Your task to perform on an android device: Clear all items from cart on newegg.com. Add "razer thresher" to the cart on newegg.com Image 0: 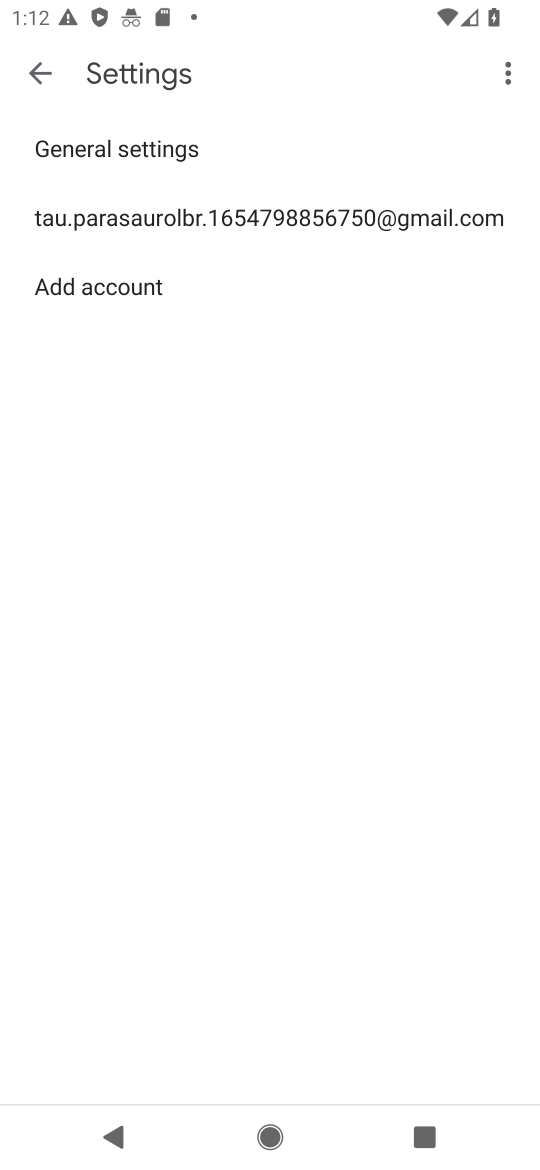
Step 0: press home button
Your task to perform on an android device: Clear all items from cart on newegg.com. Add "razer thresher" to the cart on newegg.com Image 1: 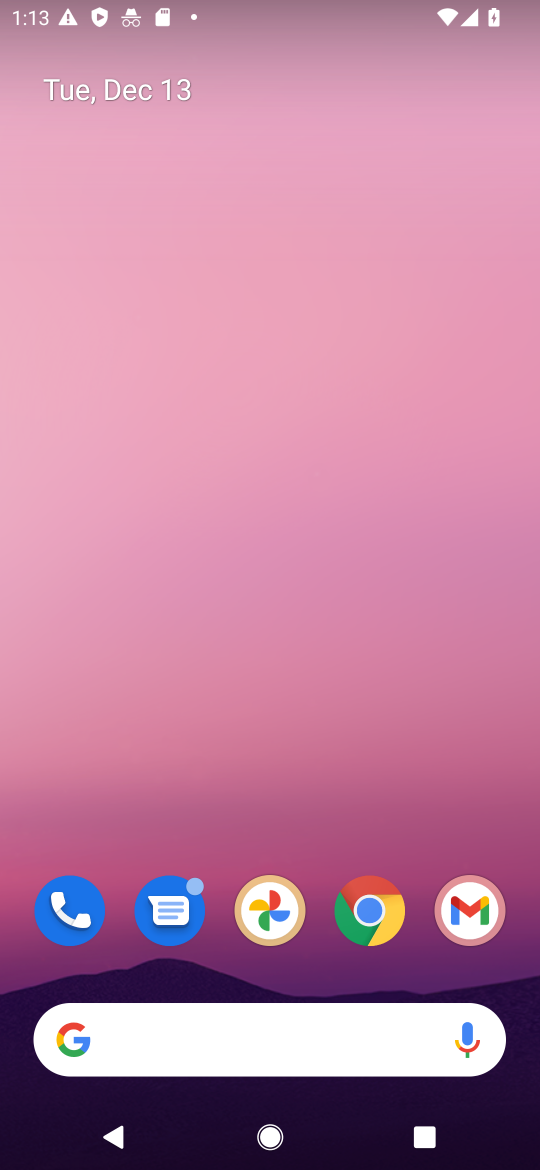
Step 1: click (366, 897)
Your task to perform on an android device: Clear all items from cart on newegg.com. Add "razer thresher" to the cart on newegg.com Image 2: 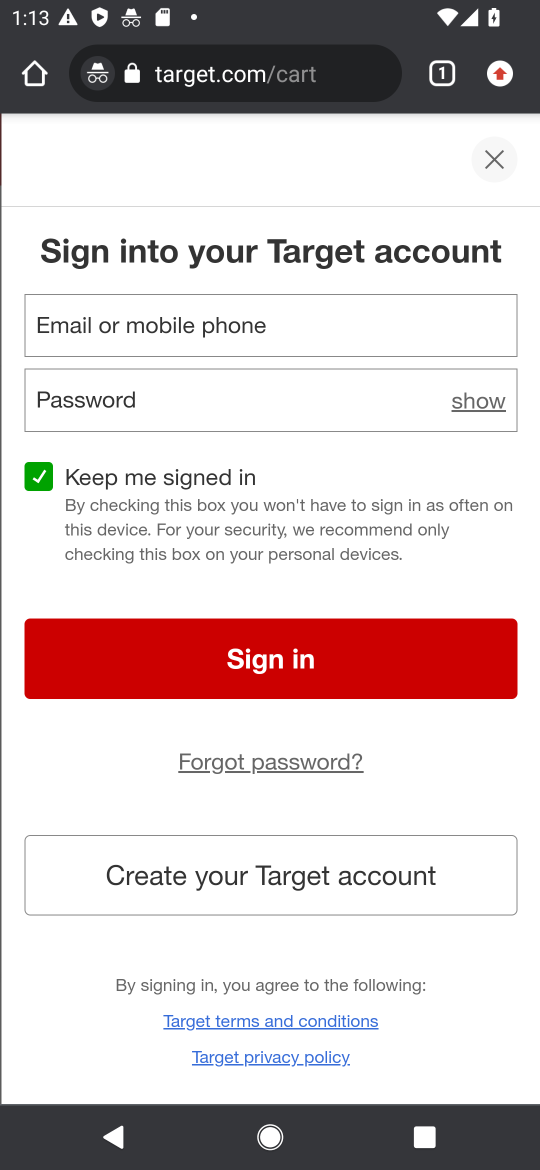
Step 2: click (225, 77)
Your task to perform on an android device: Clear all items from cart on newegg.com. Add "razer thresher" to the cart on newegg.com Image 3: 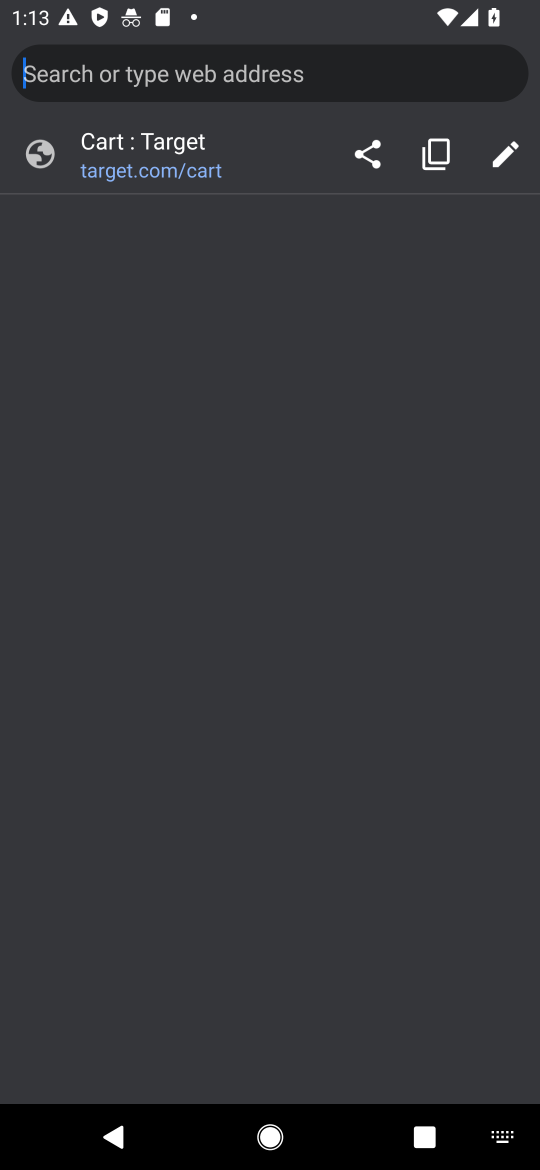
Step 3: type "NEWEGG"
Your task to perform on an android device: Clear all items from cart on newegg.com. Add "razer thresher" to the cart on newegg.com Image 4: 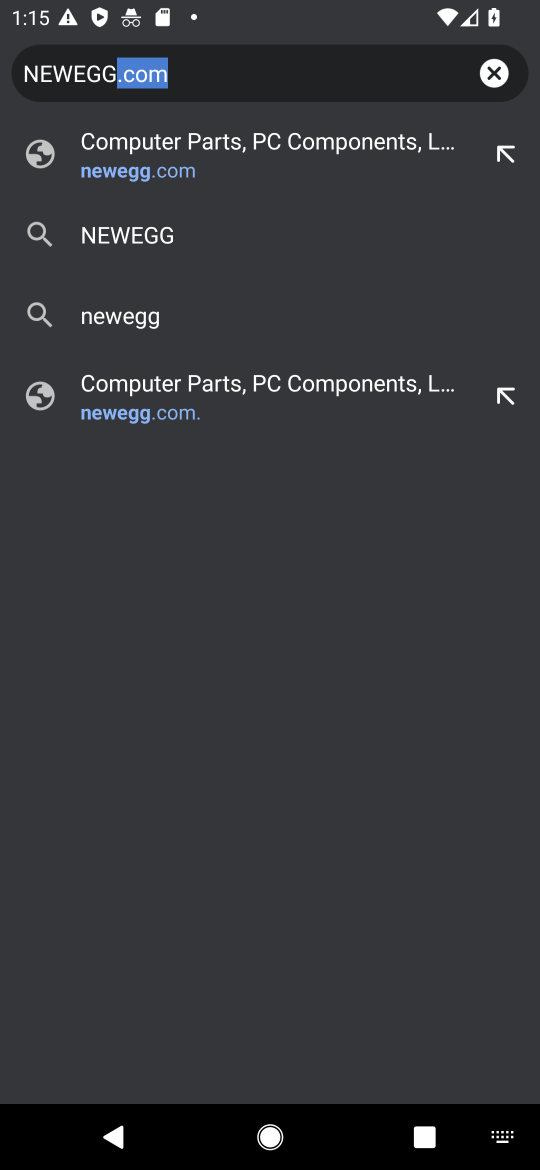
Step 4: click (173, 171)
Your task to perform on an android device: Clear all items from cart on newegg.com. Add "razer thresher" to the cart on newegg.com Image 5: 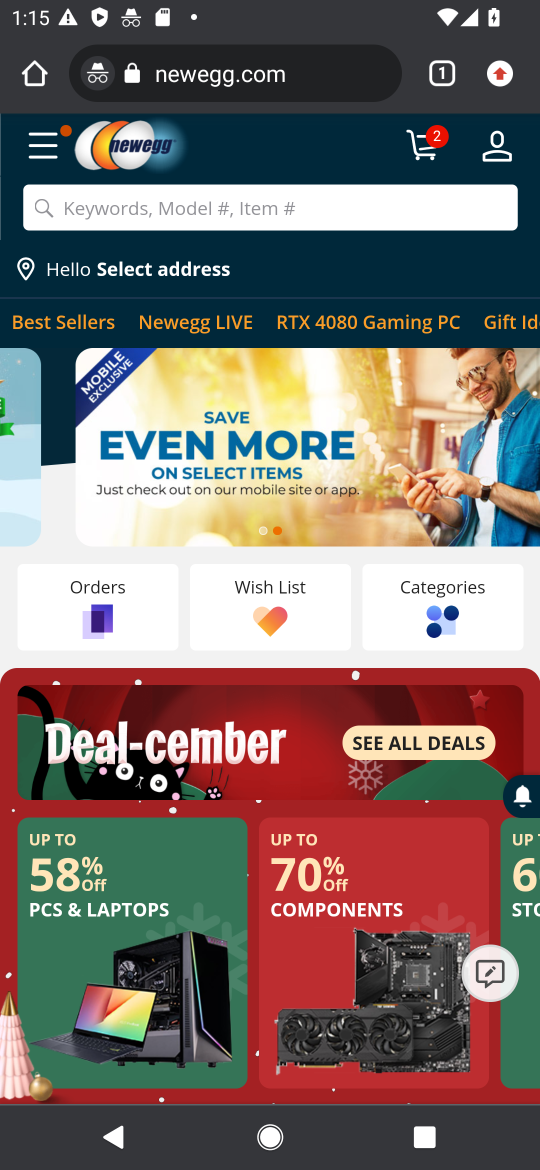
Step 5: click (223, 213)
Your task to perform on an android device: Clear all items from cart on newegg.com. Add "razer thresher" to the cart on newegg.com Image 6: 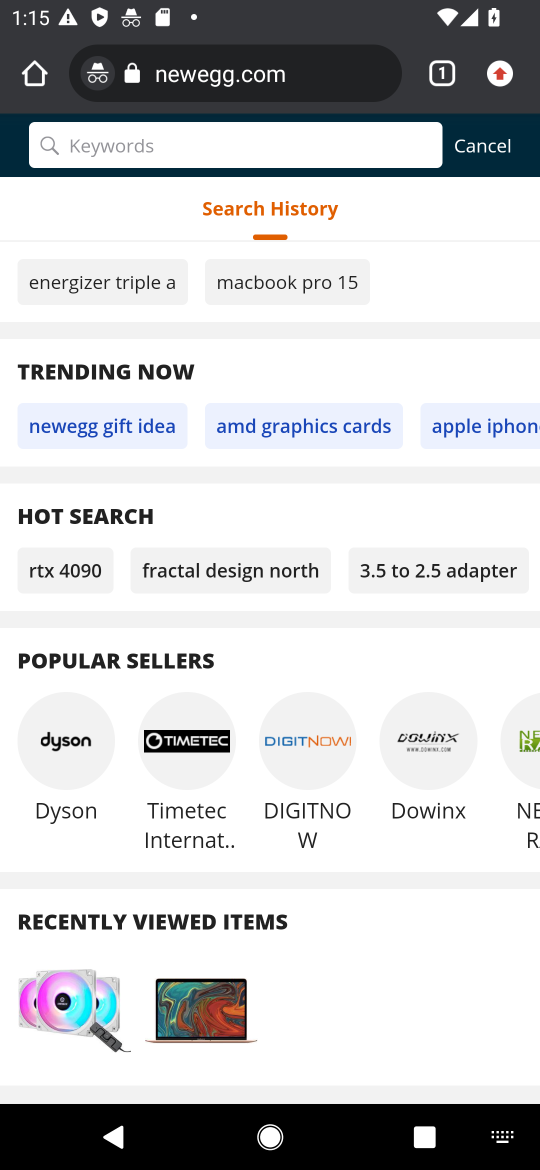
Step 6: type "RAZER THRESHER"
Your task to perform on an android device: Clear all items from cart on newegg.com. Add "razer thresher" to the cart on newegg.com Image 7: 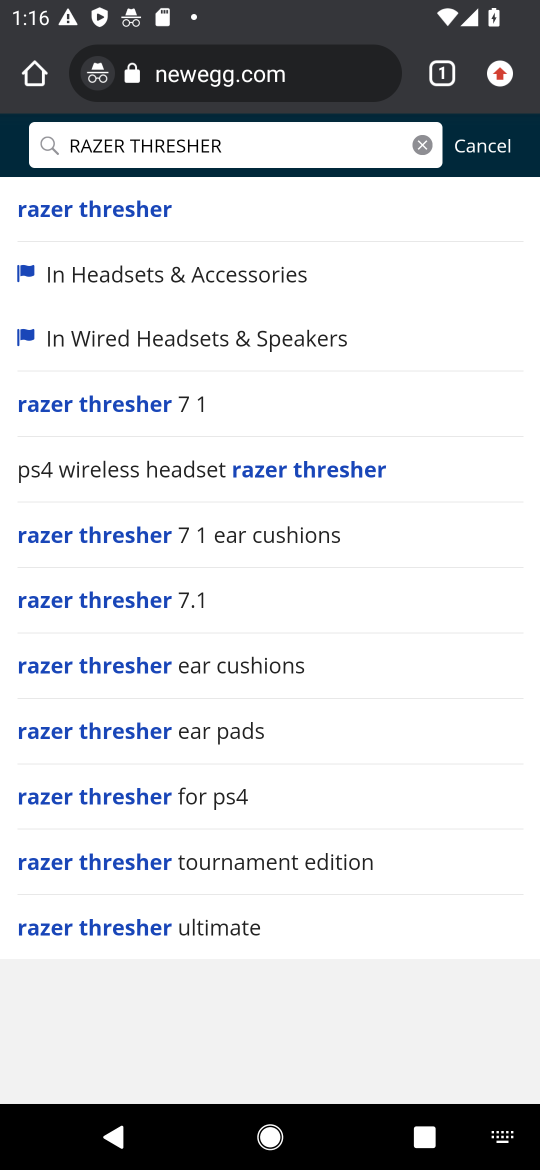
Step 7: click (159, 212)
Your task to perform on an android device: Clear all items from cart on newegg.com. Add "razer thresher" to the cart on newegg.com Image 8: 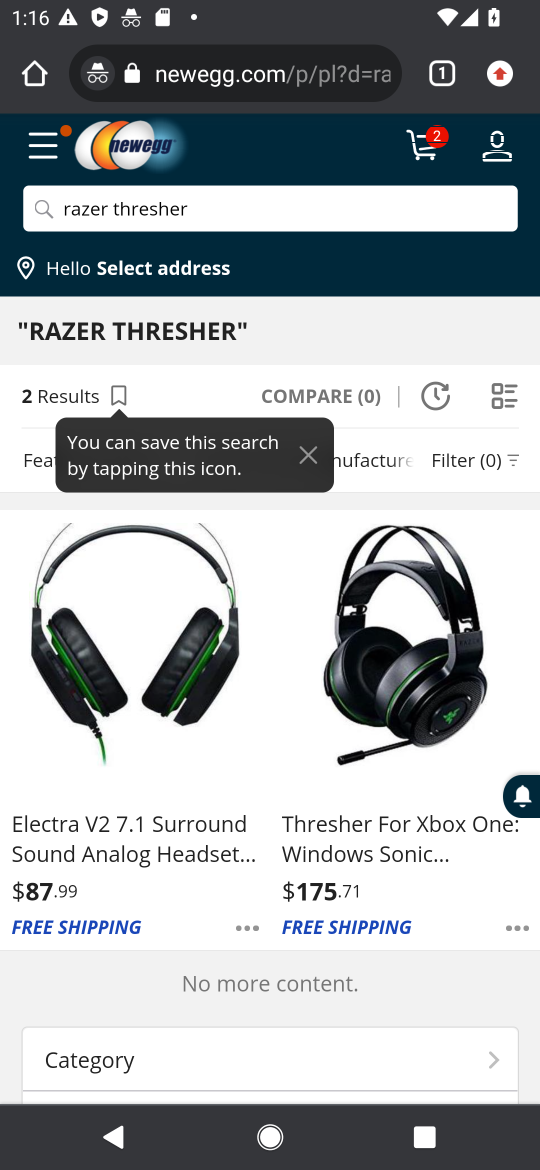
Step 8: click (96, 759)
Your task to perform on an android device: Clear all items from cart on newegg.com. Add "razer thresher" to the cart on newegg.com Image 9: 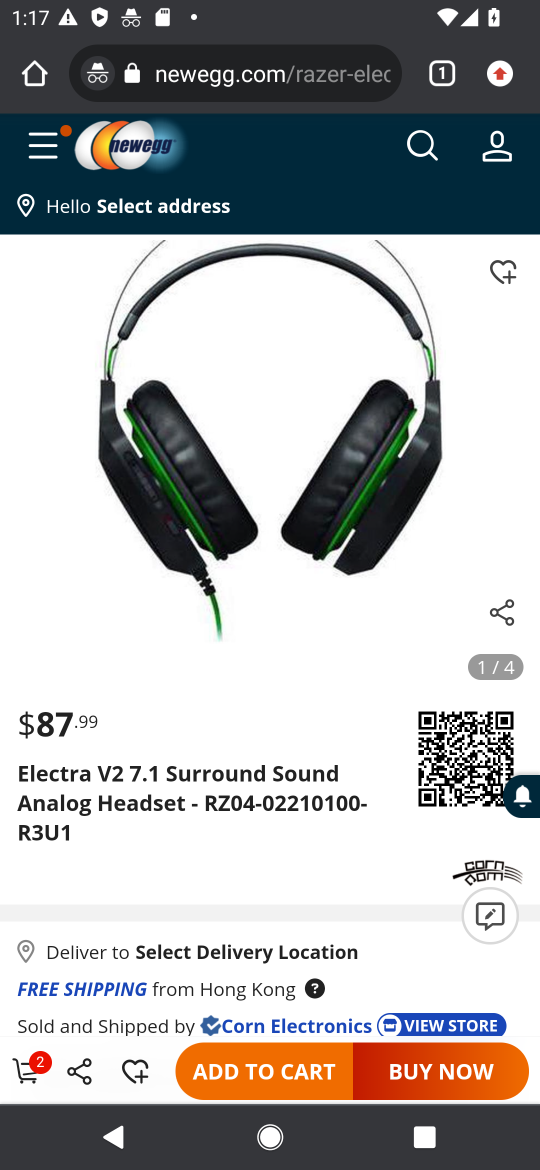
Step 9: drag from (417, 938) to (372, 419)
Your task to perform on an android device: Clear all items from cart on newegg.com. Add "razer thresher" to the cart on newegg.com Image 10: 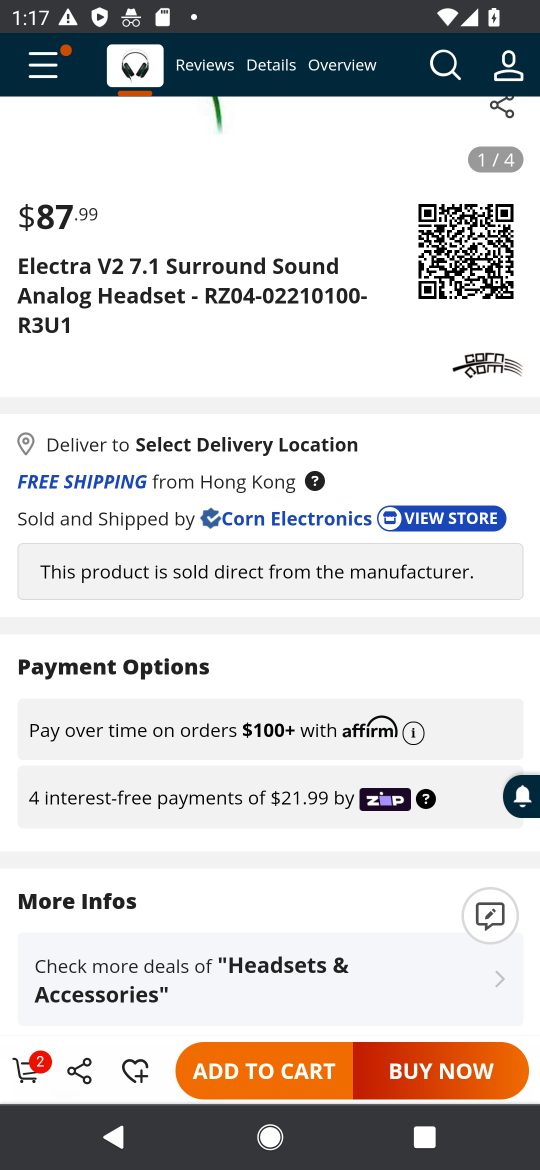
Step 10: click (254, 1072)
Your task to perform on an android device: Clear all items from cart on newegg.com. Add "razer thresher" to the cart on newegg.com Image 11: 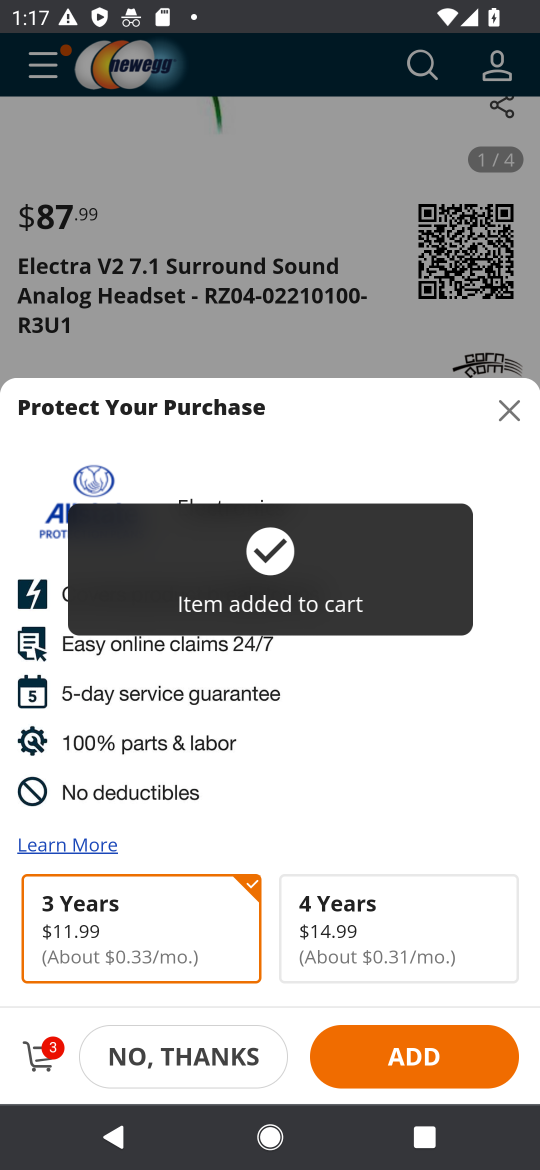
Step 11: task complete